Your task to perform on an android device: set an alarm Image 0: 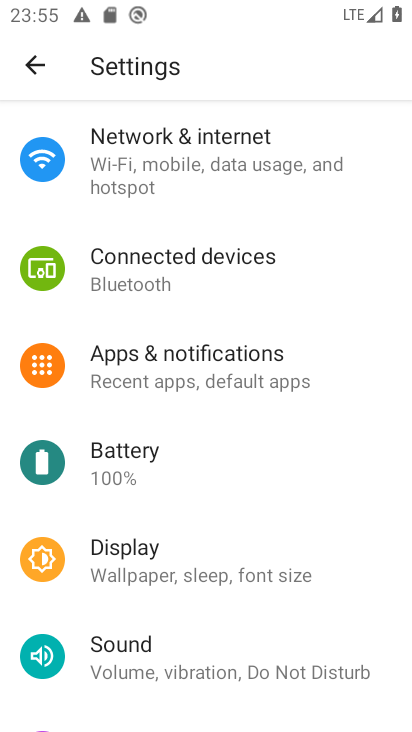
Step 0: press home button
Your task to perform on an android device: set an alarm Image 1: 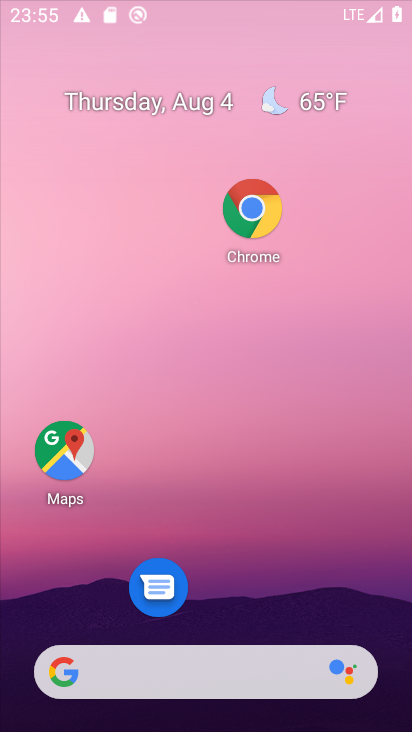
Step 1: drag from (182, 638) to (190, 161)
Your task to perform on an android device: set an alarm Image 2: 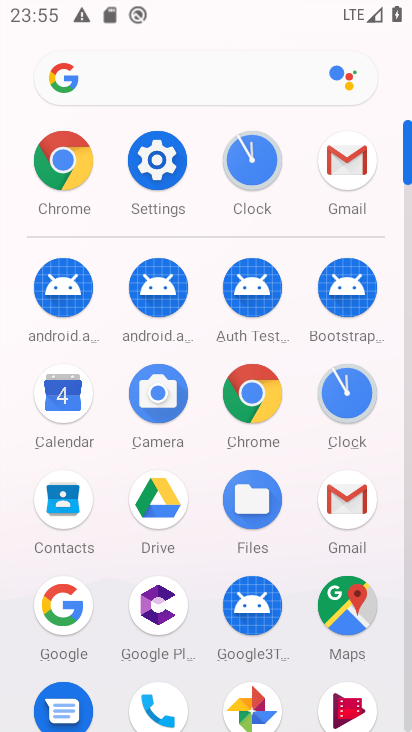
Step 2: click (355, 396)
Your task to perform on an android device: set an alarm Image 3: 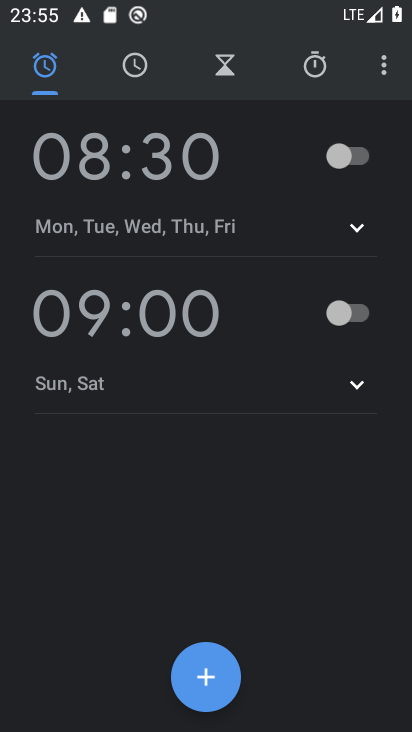
Step 3: click (353, 152)
Your task to perform on an android device: set an alarm Image 4: 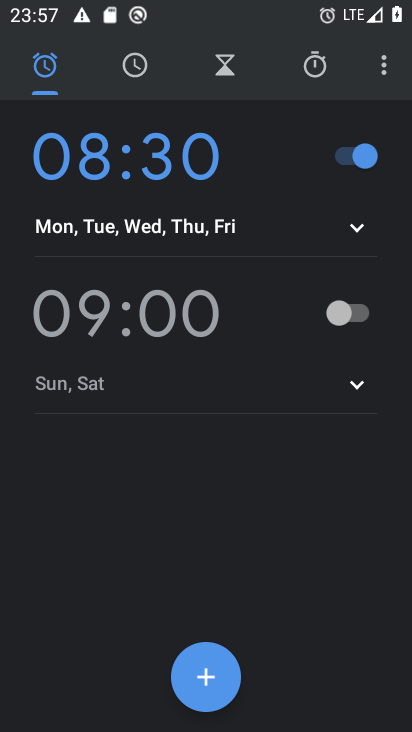
Step 4: task complete